Your task to perform on an android device: Do I have any events this weekend? Image 0: 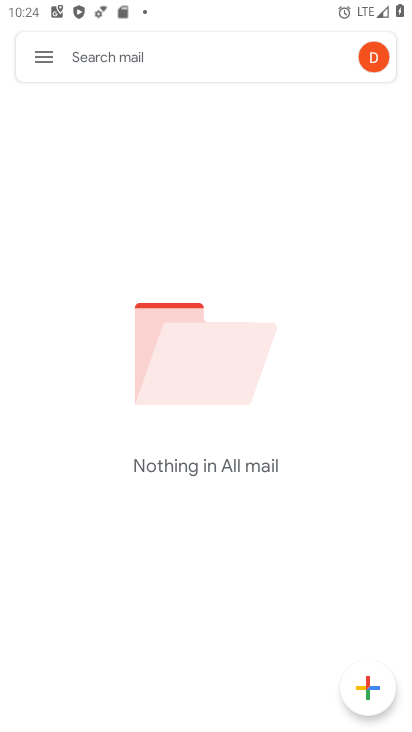
Step 0: press home button
Your task to perform on an android device: Do I have any events this weekend? Image 1: 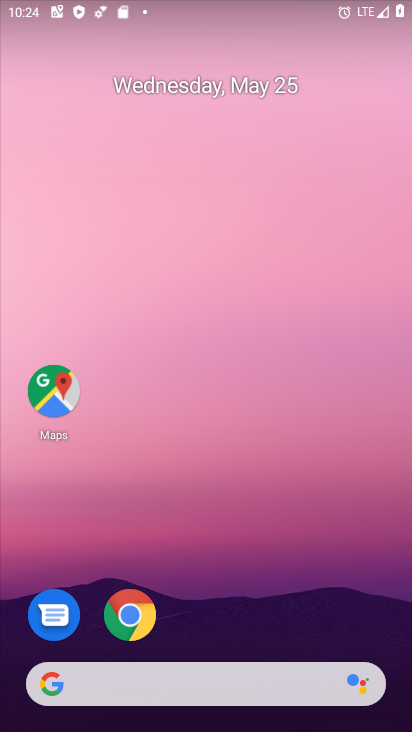
Step 1: drag from (215, 511) to (264, 37)
Your task to perform on an android device: Do I have any events this weekend? Image 2: 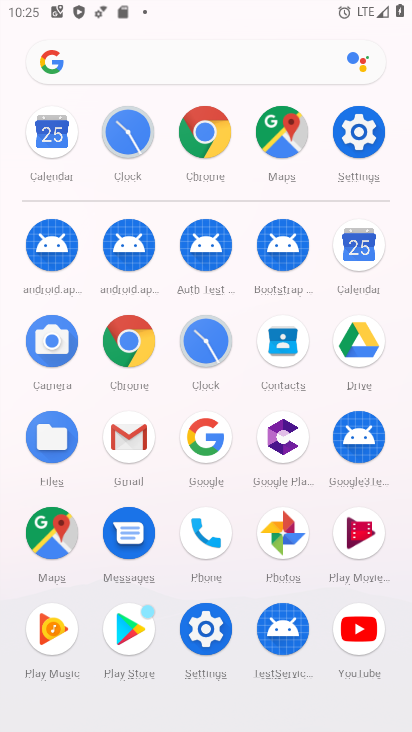
Step 2: click (67, 136)
Your task to perform on an android device: Do I have any events this weekend? Image 3: 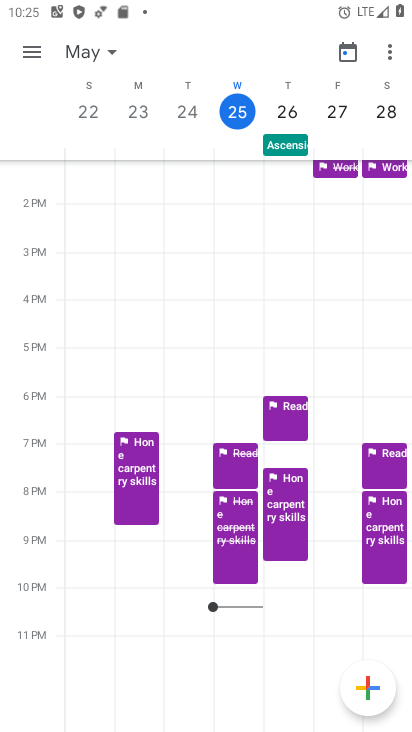
Step 3: click (376, 101)
Your task to perform on an android device: Do I have any events this weekend? Image 4: 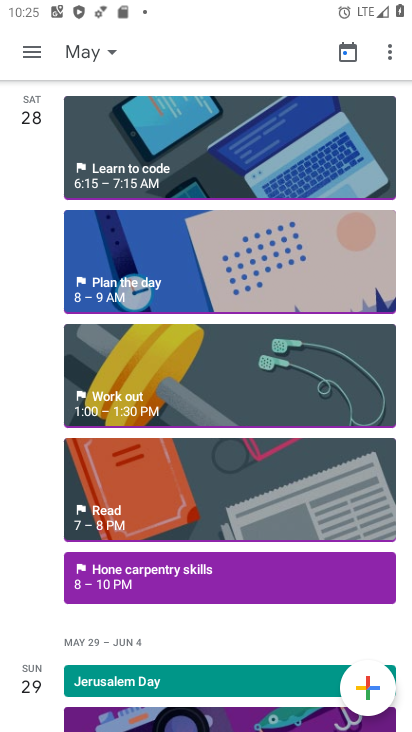
Step 4: task complete